Your task to perform on an android device: Open settings on Google Maps Image 0: 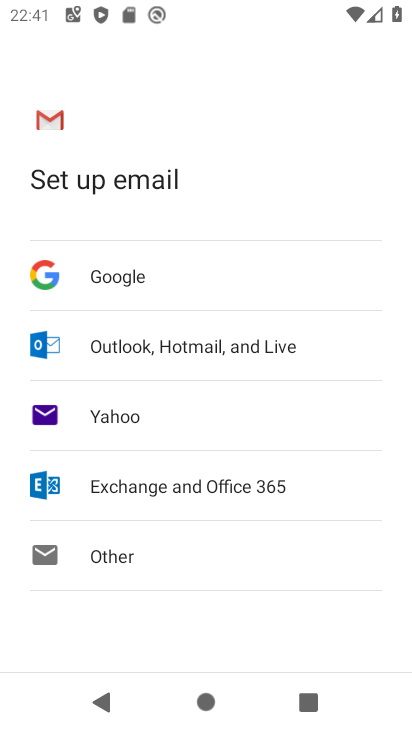
Step 0: press home button
Your task to perform on an android device: Open settings on Google Maps Image 1: 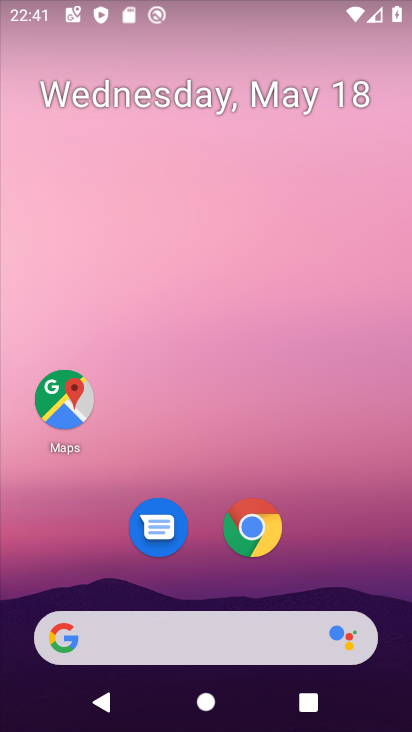
Step 1: click (84, 395)
Your task to perform on an android device: Open settings on Google Maps Image 2: 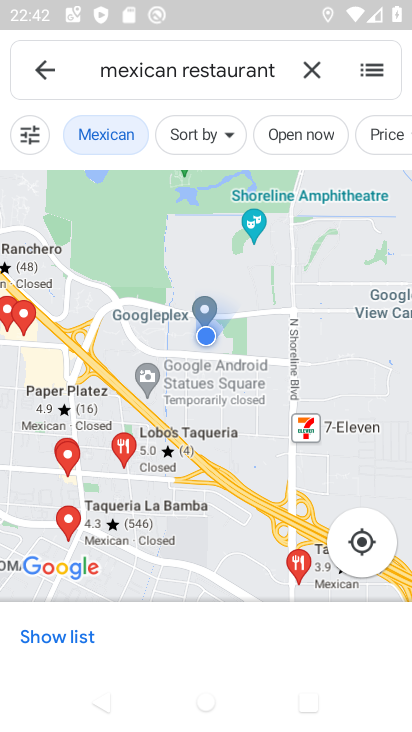
Step 2: task complete